Your task to perform on an android device: toggle wifi Image 0: 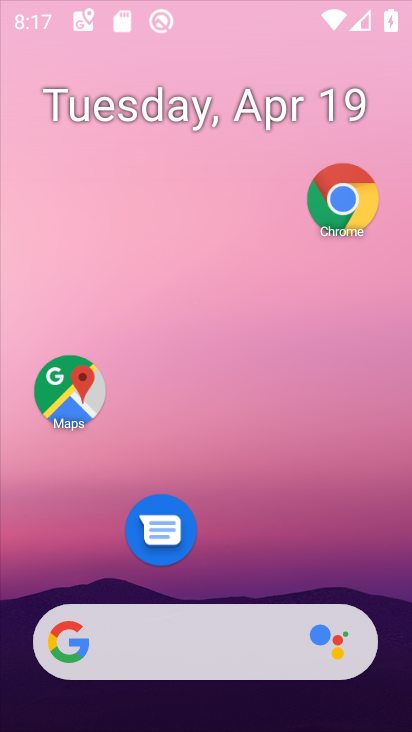
Step 0: click (203, 187)
Your task to perform on an android device: toggle wifi Image 1: 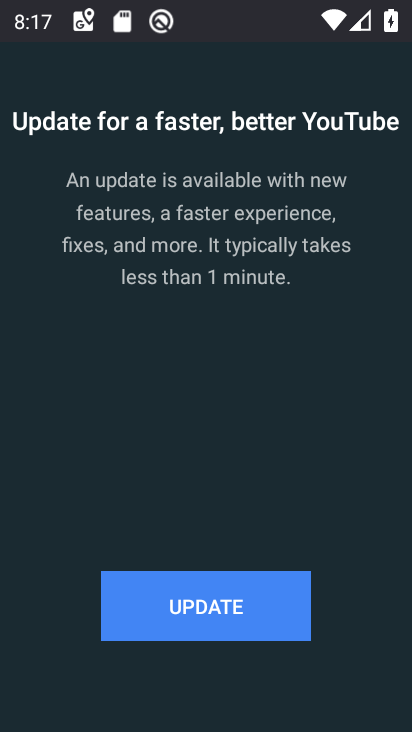
Step 1: press home button
Your task to perform on an android device: toggle wifi Image 2: 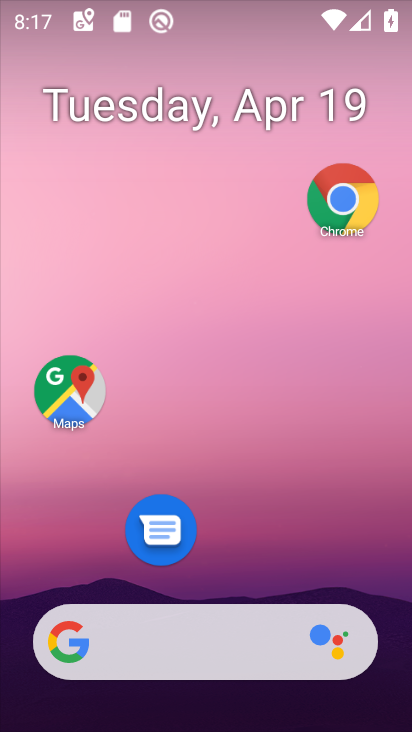
Step 2: drag from (211, 497) to (211, 152)
Your task to perform on an android device: toggle wifi Image 3: 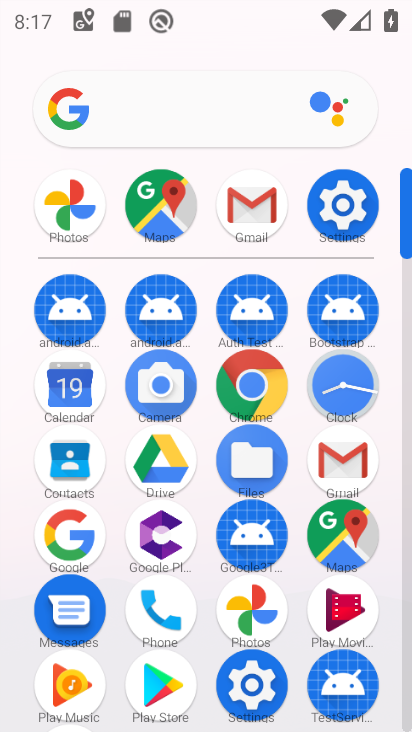
Step 3: click (333, 204)
Your task to perform on an android device: toggle wifi Image 4: 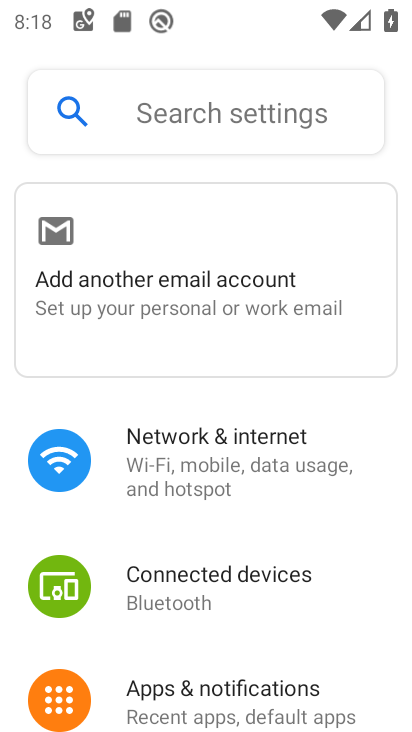
Step 4: drag from (234, 638) to (256, 239)
Your task to perform on an android device: toggle wifi Image 5: 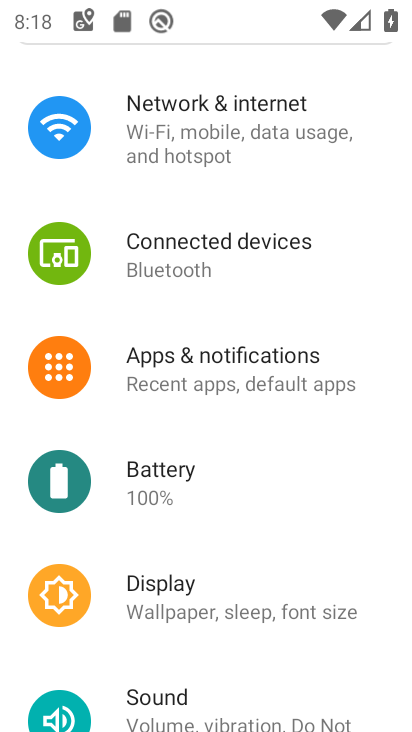
Step 5: click (202, 143)
Your task to perform on an android device: toggle wifi Image 6: 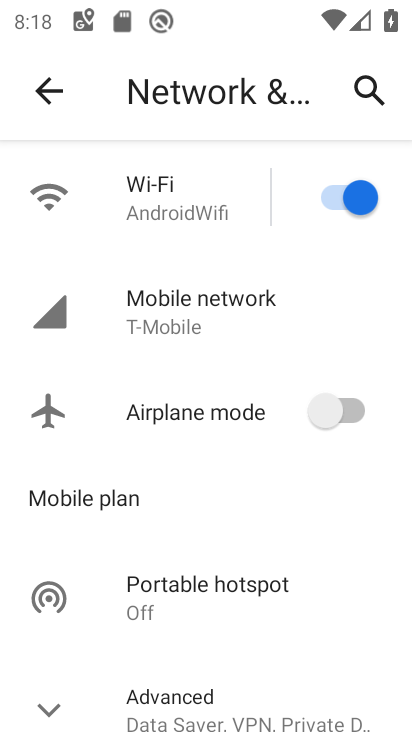
Step 6: click (194, 196)
Your task to perform on an android device: toggle wifi Image 7: 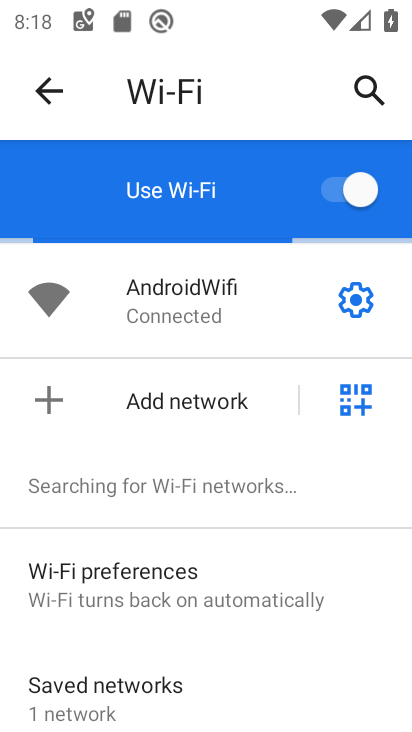
Step 7: click (345, 190)
Your task to perform on an android device: toggle wifi Image 8: 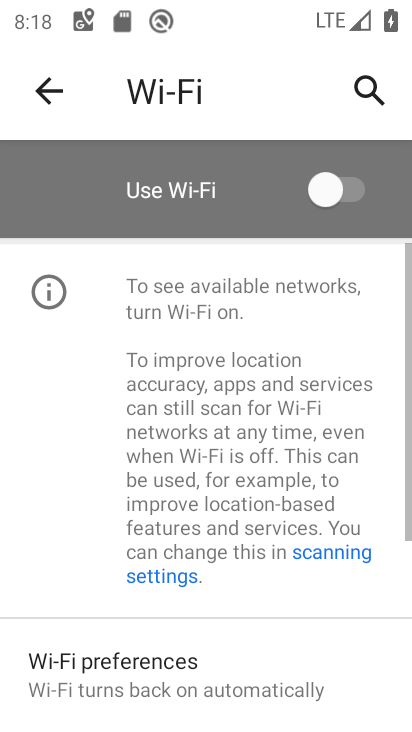
Step 8: task complete